Your task to perform on an android device: Go to display settings Image 0: 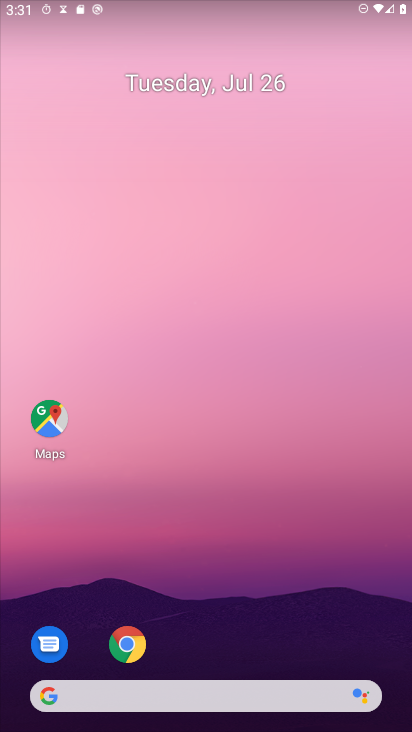
Step 0: press home button
Your task to perform on an android device: Go to display settings Image 1: 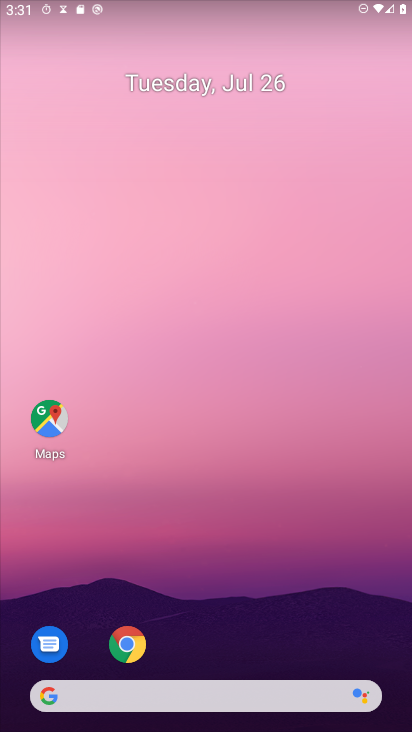
Step 1: drag from (291, 615) to (410, 81)
Your task to perform on an android device: Go to display settings Image 2: 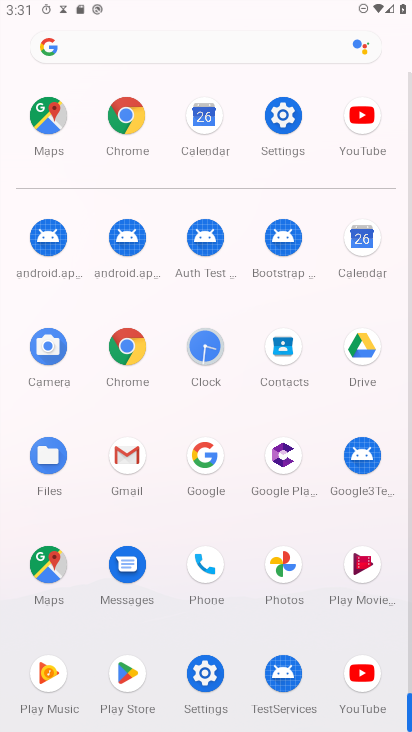
Step 2: click (285, 116)
Your task to perform on an android device: Go to display settings Image 3: 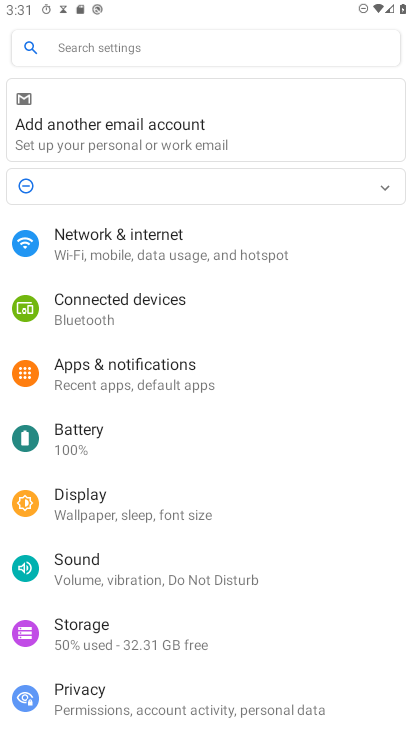
Step 3: click (101, 508)
Your task to perform on an android device: Go to display settings Image 4: 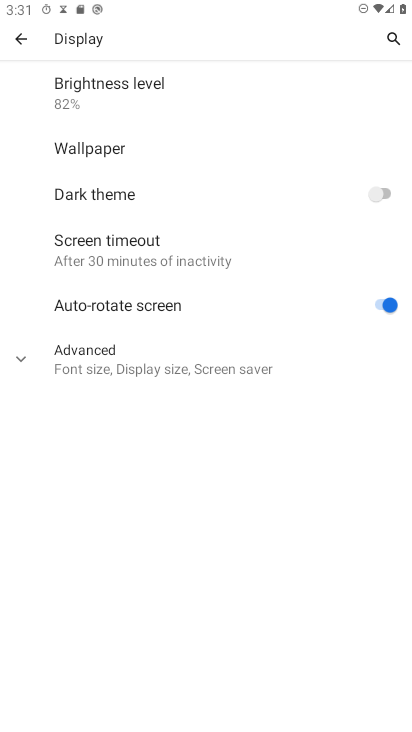
Step 4: task complete